Your task to perform on an android device: Open eBay Image 0: 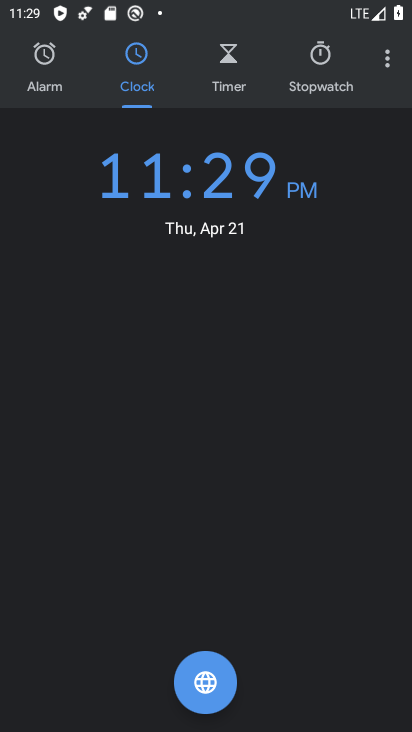
Step 0: press back button
Your task to perform on an android device: Open eBay Image 1: 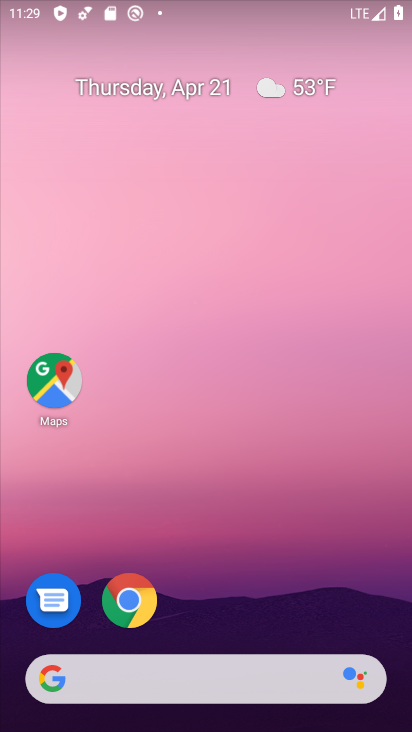
Step 1: click (143, 609)
Your task to perform on an android device: Open eBay Image 2: 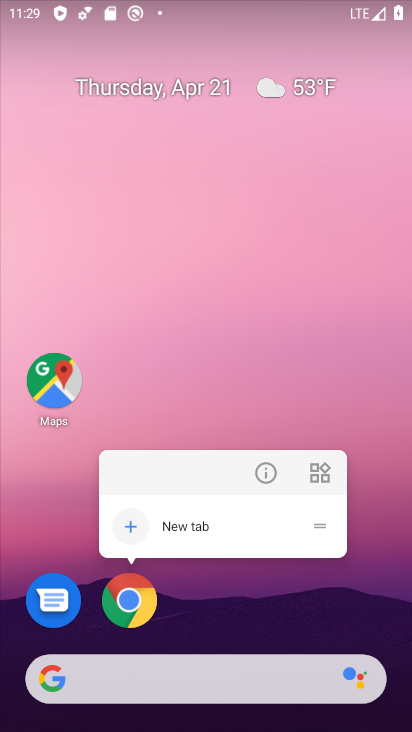
Step 2: click (131, 608)
Your task to perform on an android device: Open eBay Image 3: 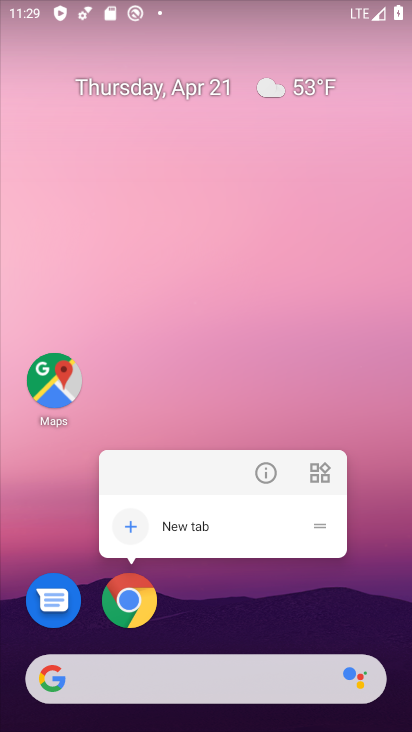
Step 3: click (147, 601)
Your task to perform on an android device: Open eBay Image 4: 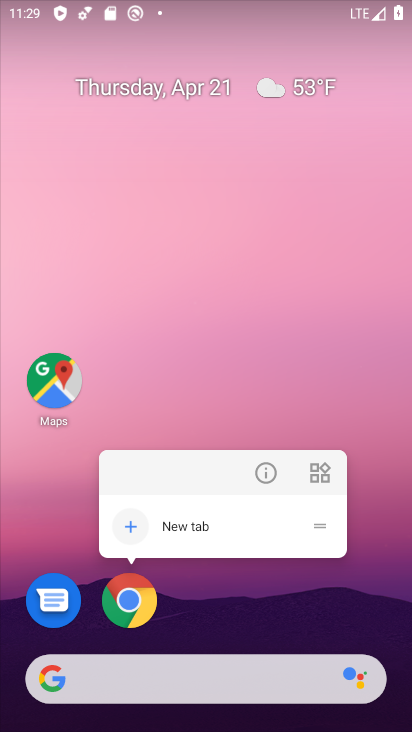
Step 4: click (140, 605)
Your task to perform on an android device: Open eBay Image 5: 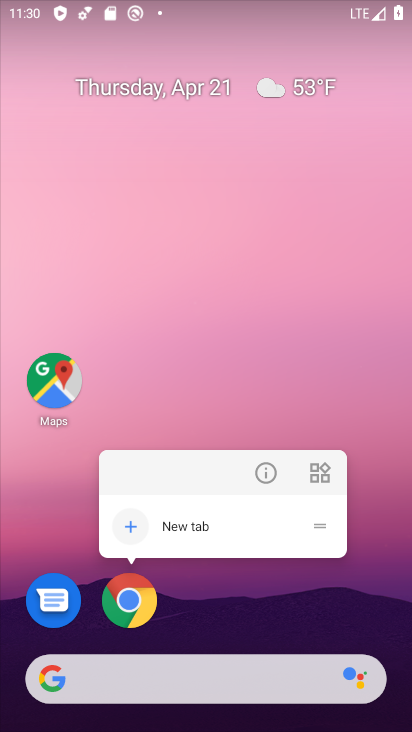
Step 5: click (137, 606)
Your task to perform on an android device: Open eBay Image 6: 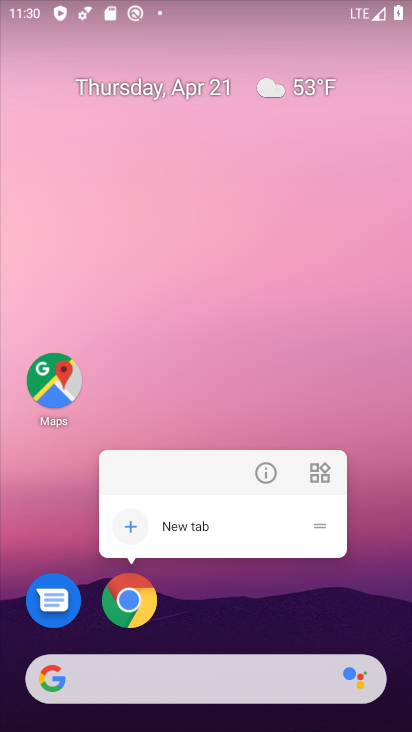
Step 6: click (127, 599)
Your task to perform on an android device: Open eBay Image 7: 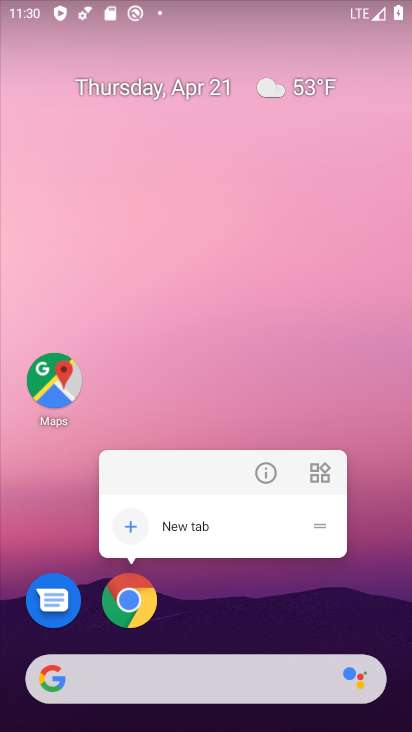
Step 7: click (126, 586)
Your task to perform on an android device: Open eBay Image 8: 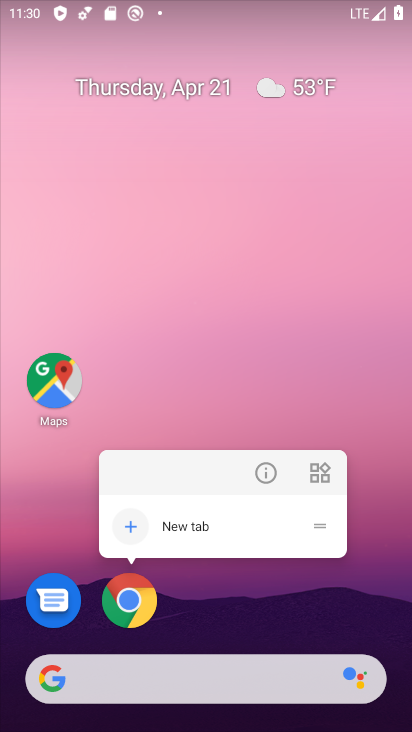
Step 8: click (124, 611)
Your task to perform on an android device: Open eBay Image 9: 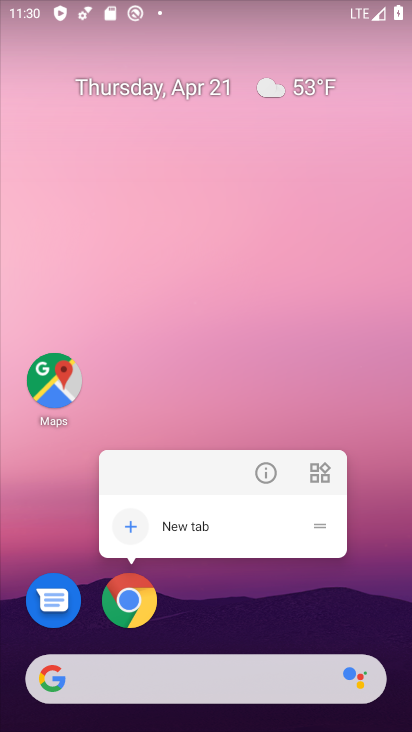
Step 9: click (144, 604)
Your task to perform on an android device: Open eBay Image 10: 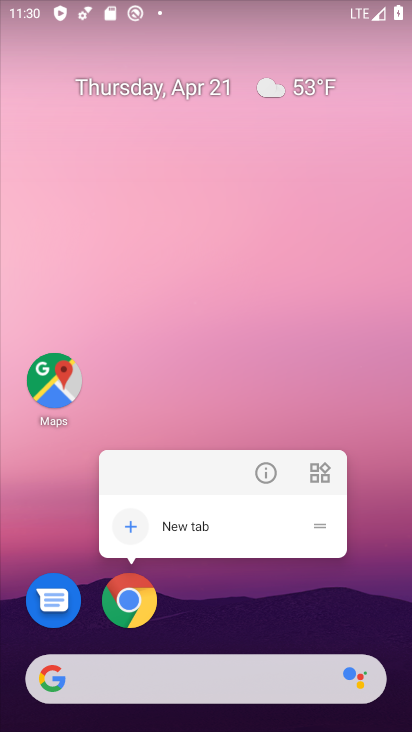
Step 10: click (144, 604)
Your task to perform on an android device: Open eBay Image 11: 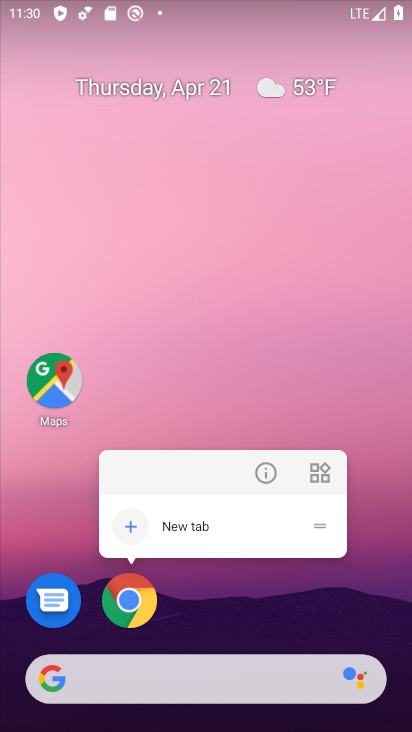
Step 11: click (136, 612)
Your task to perform on an android device: Open eBay Image 12: 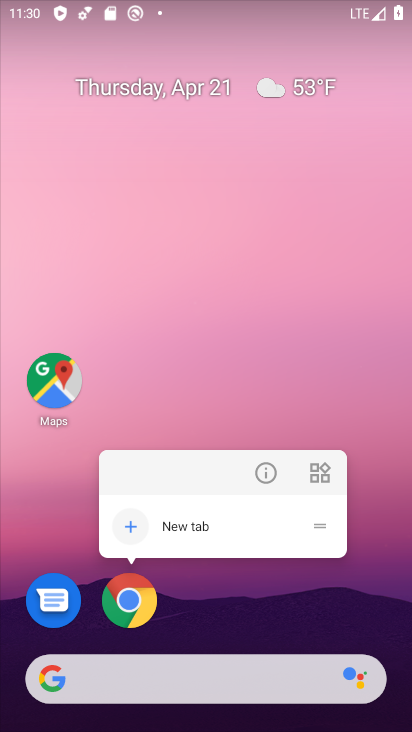
Step 12: click (127, 597)
Your task to perform on an android device: Open eBay Image 13: 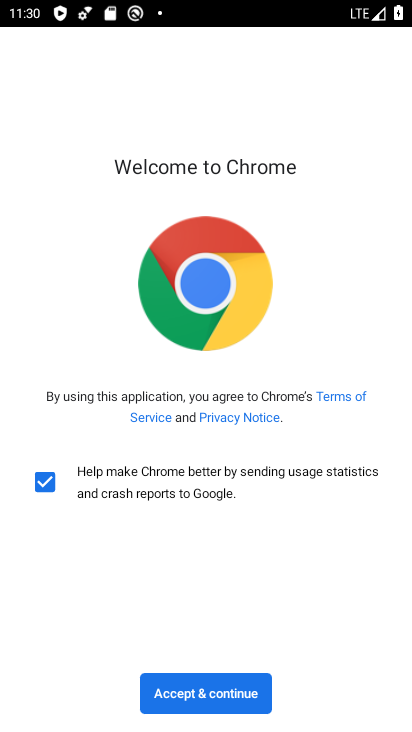
Step 13: click (221, 698)
Your task to perform on an android device: Open eBay Image 14: 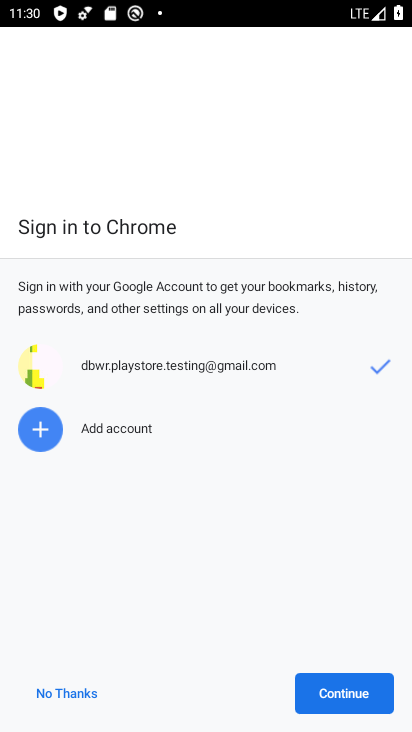
Step 14: click (331, 688)
Your task to perform on an android device: Open eBay Image 15: 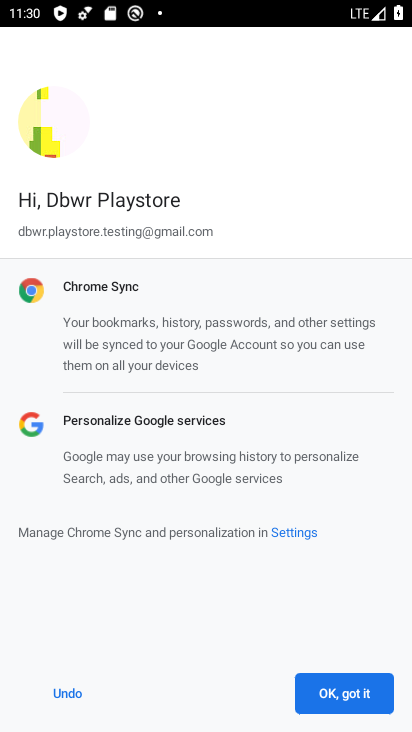
Step 15: click (346, 697)
Your task to perform on an android device: Open eBay Image 16: 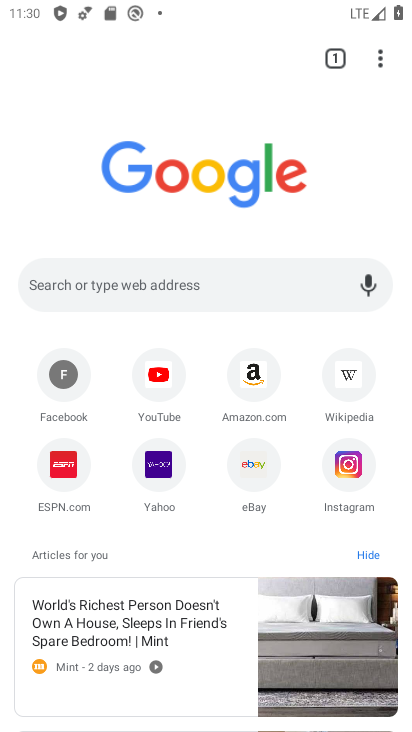
Step 16: click (258, 466)
Your task to perform on an android device: Open eBay Image 17: 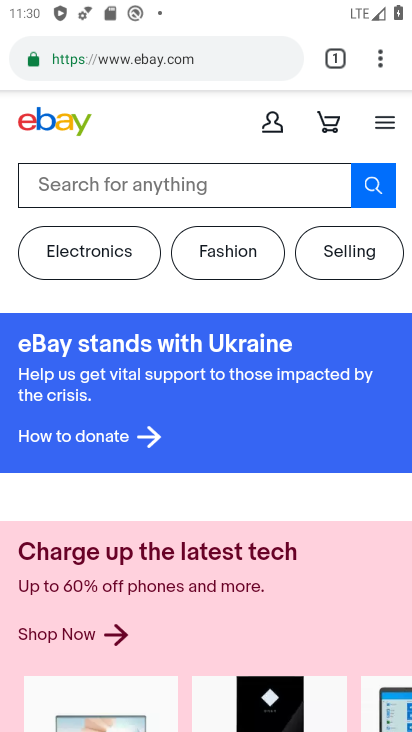
Step 17: task complete